Your task to perform on an android device: change the upload size in google photos Image 0: 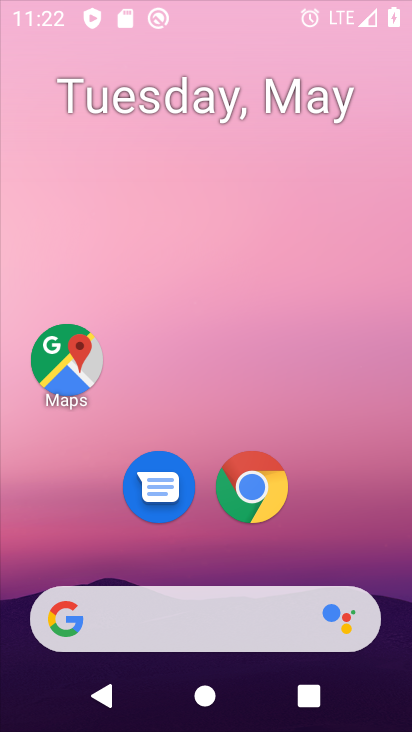
Step 0: click (202, 64)
Your task to perform on an android device: change the upload size in google photos Image 1: 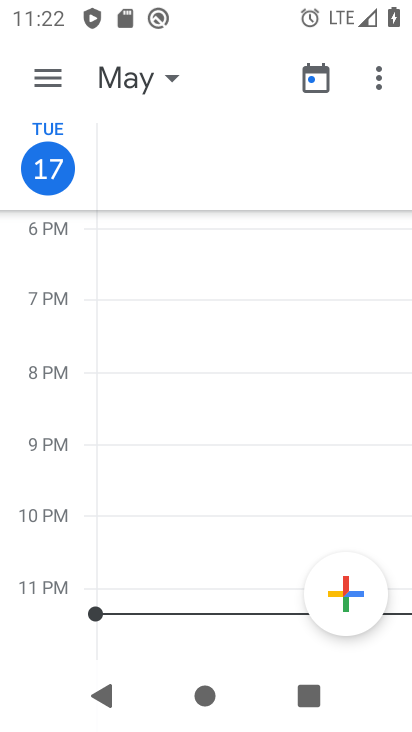
Step 1: drag from (181, 467) to (199, 210)
Your task to perform on an android device: change the upload size in google photos Image 2: 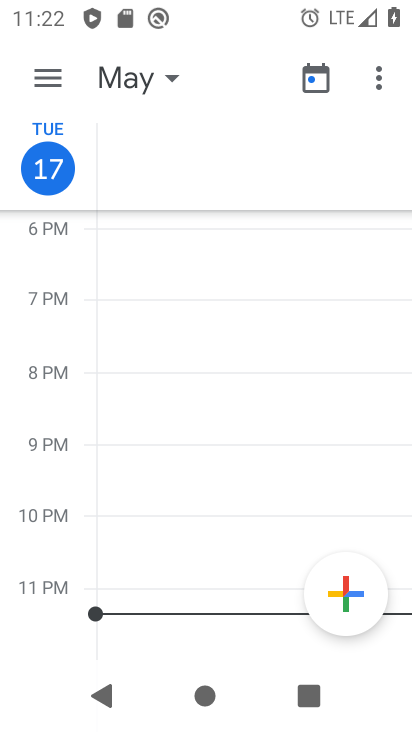
Step 2: click (156, 85)
Your task to perform on an android device: change the upload size in google photos Image 3: 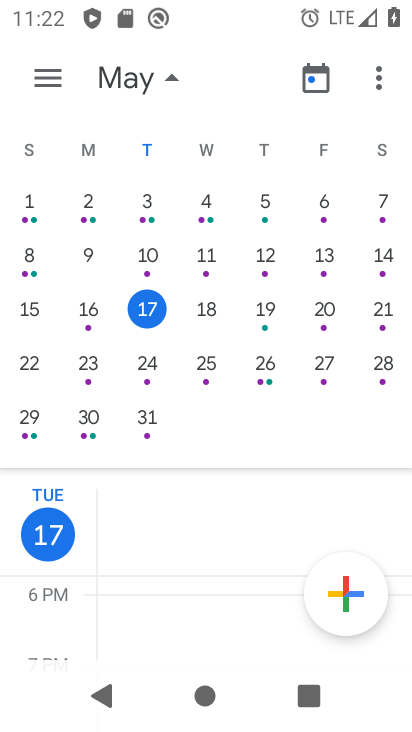
Step 3: press back button
Your task to perform on an android device: change the upload size in google photos Image 4: 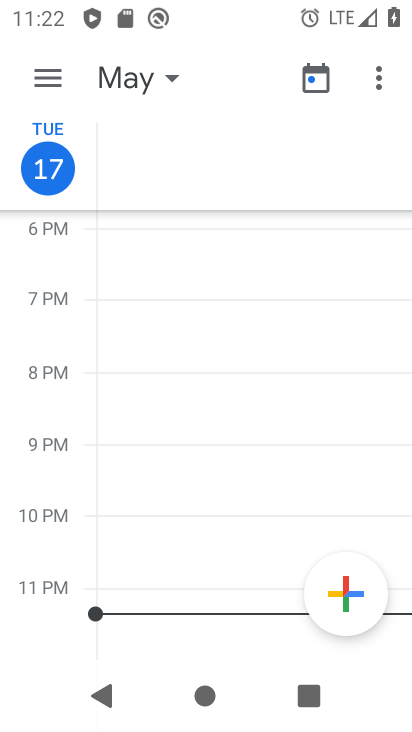
Step 4: press back button
Your task to perform on an android device: change the upload size in google photos Image 5: 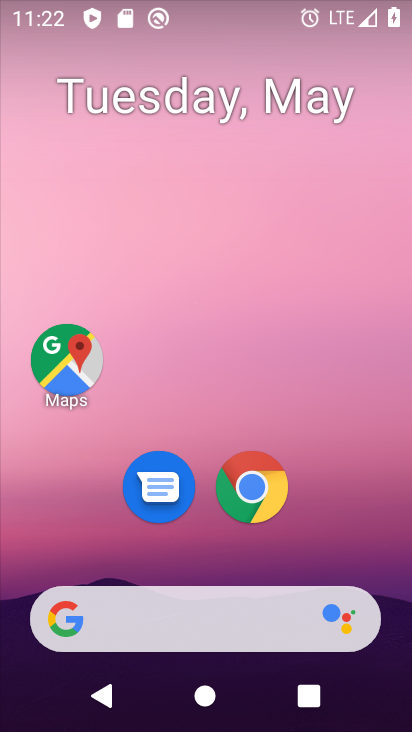
Step 5: drag from (161, 573) to (297, 79)
Your task to perform on an android device: change the upload size in google photos Image 6: 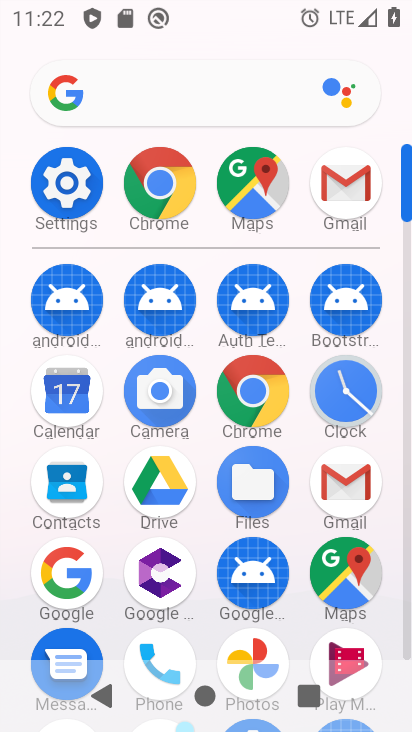
Step 6: click (251, 639)
Your task to perform on an android device: change the upload size in google photos Image 7: 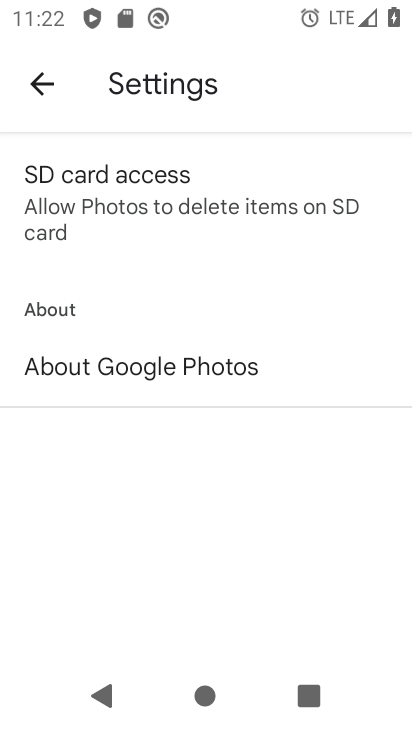
Step 7: click (36, 76)
Your task to perform on an android device: change the upload size in google photos Image 8: 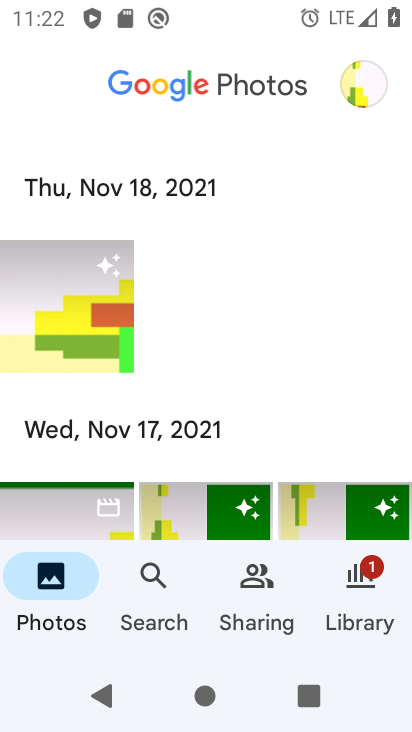
Step 8: click (159, 574)
Your task to perform on an android device: change the upload size in google photos Image 9: 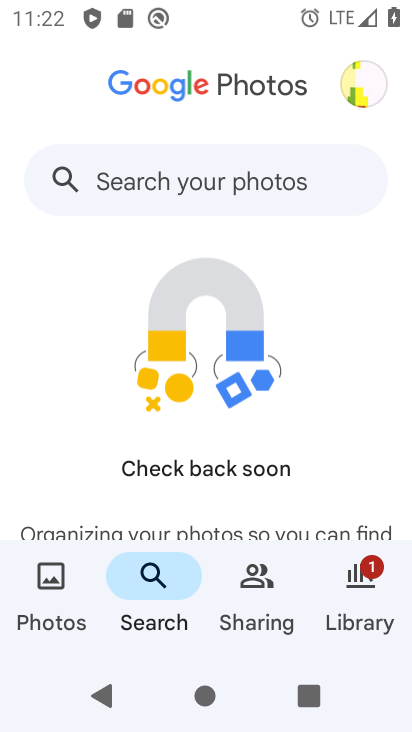
Step 9: click (369, 595)
Your task to perform on an android device: change the upload size in google photos Image 10: 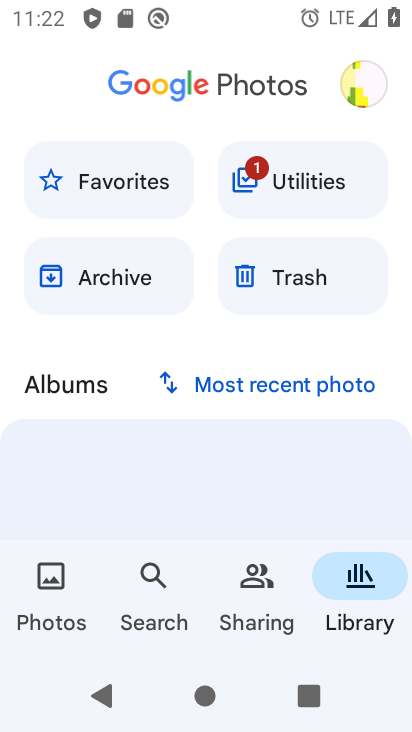
Step 10: click (372, 82)
Your task to perform on an android device: change the upload size in google photos Image 11: 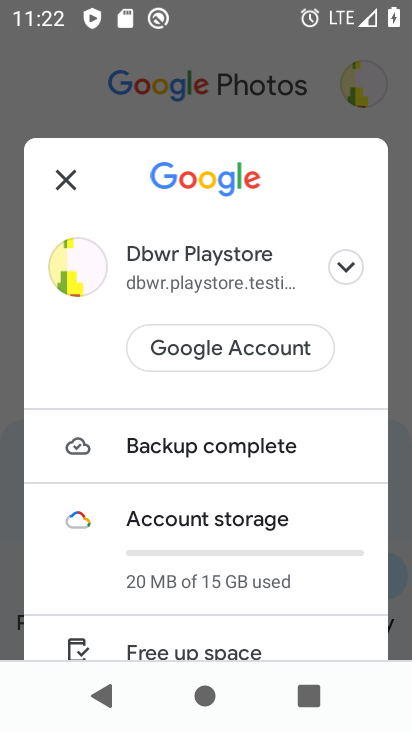
Step 11: drag from (166, 582) to (246, 181)
Your task to perform on an android device: change the upload size in google photos Image 12: 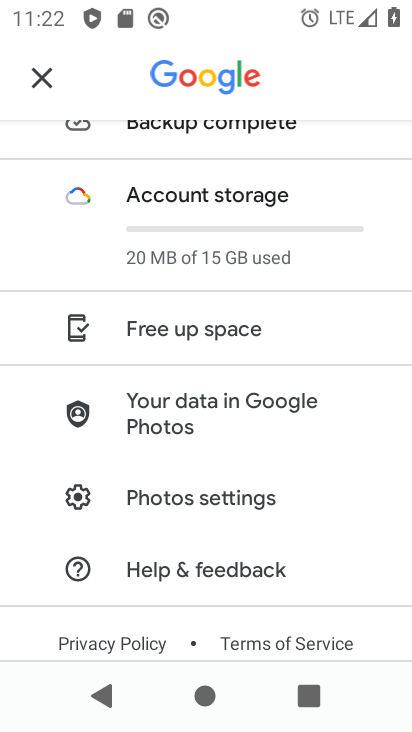
Step 12: click (228, 481)
Your task to perform on an android device: change the upload size in google photos Image 13: 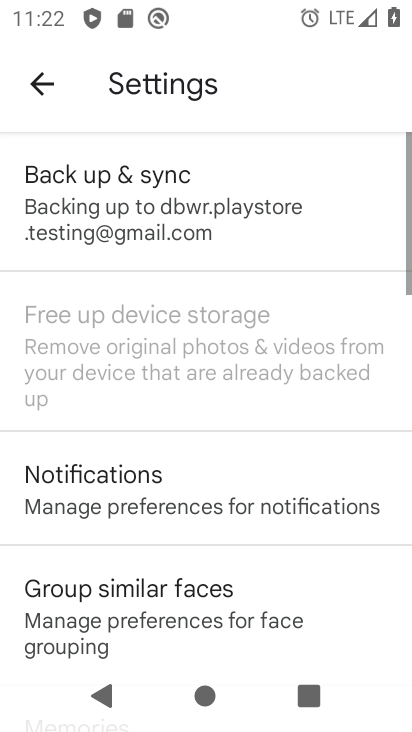
Step 13: drag from (227, 541) to (307, 230)
Your task to perform on an android device: change the upload size in google photos Image 14: 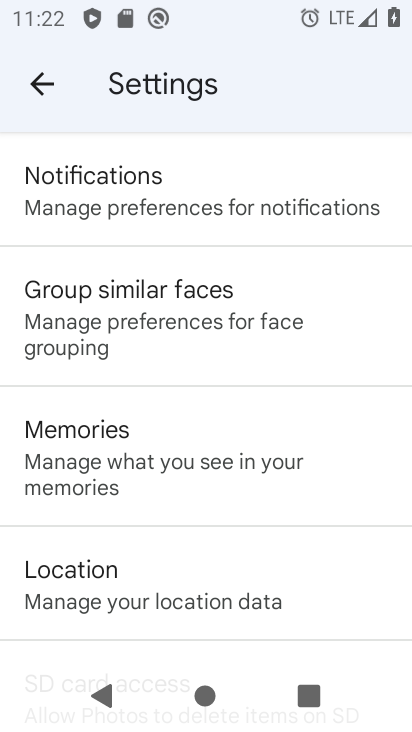
Step 14: drag from (298, 239) to (290, 628)
Your task to perform on an android device: change the upload size in google photos Image 15: 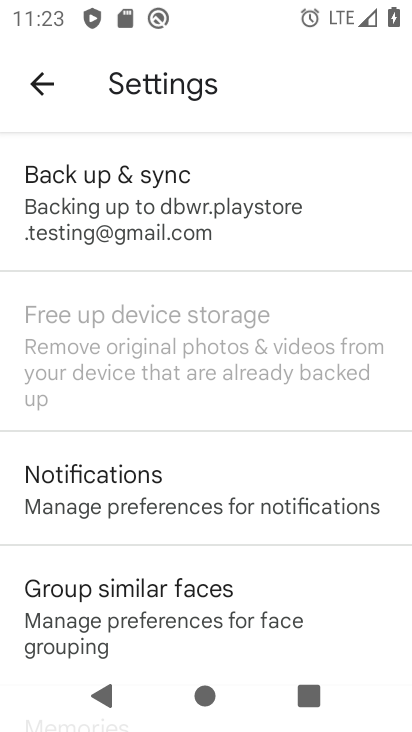
Step 15: click (102, 209)
Your task to perform on an android device: change the upload size in google photos Image 16: 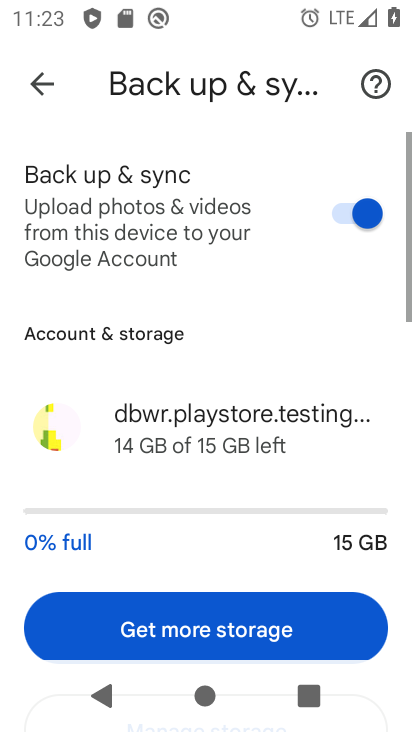
Step 16: drag from (268, 506) to (364, 59)
Your task to perform on an android device: change the upload size in google photos Image 17: 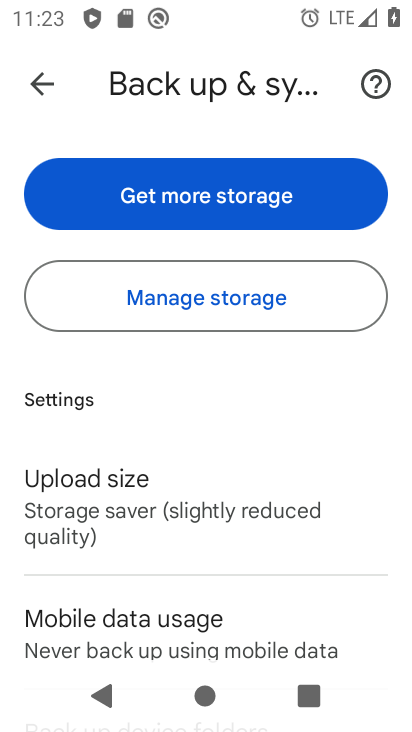
Step 17: click (189, 500)
Your task to perform on an android device: change the upload size in google photos Image 18: 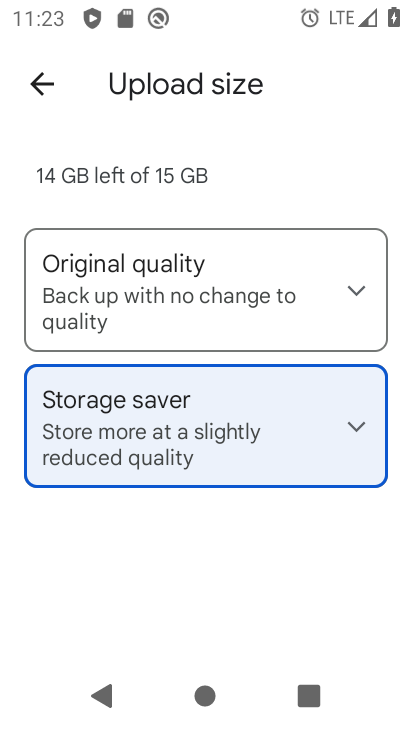
Step 18: drag from (241, 517) to (313, 213)
Your task to perform on an android device: change the upload size in google photos Image 19: 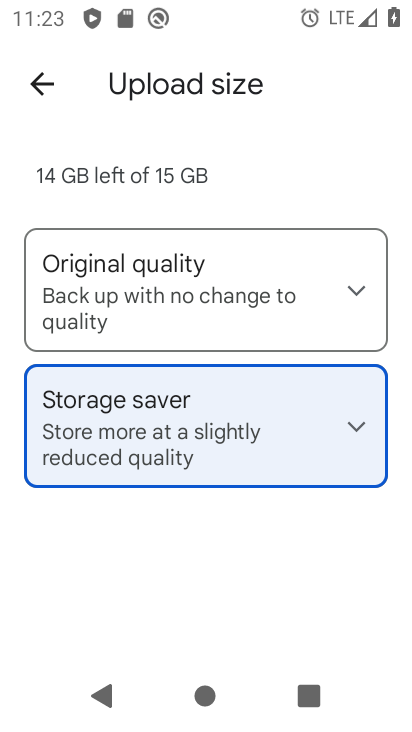
Step 19: click (158, 277)
Your task to perform on an android device: change the upload size in google photos Image 20: 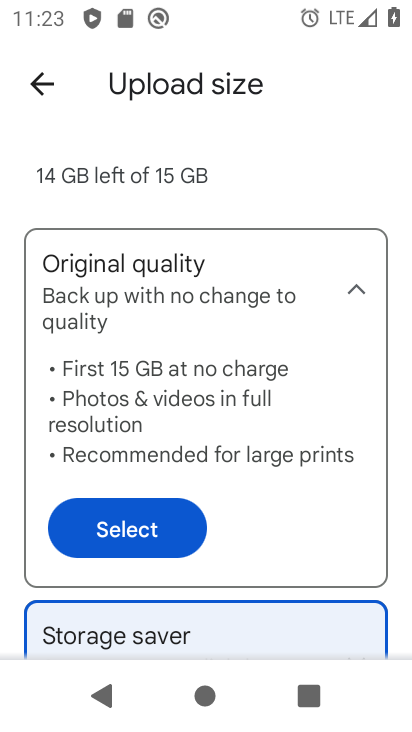
Step 20: click (162, 537)
Your task to perform on an android device: change the upload size in google photos Image 21: 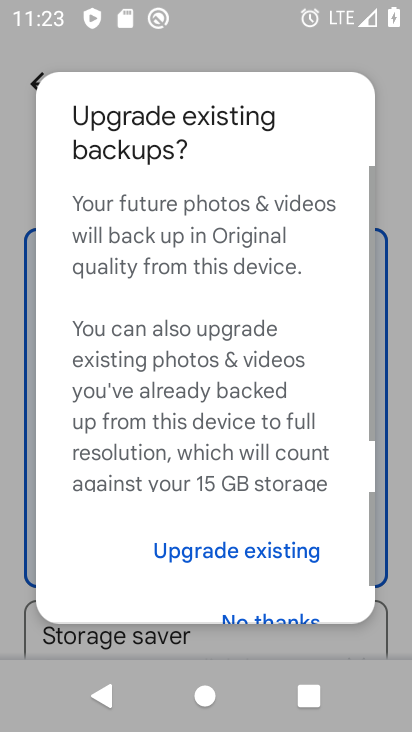
Step 21: task complete